Your task to perform on an android device: Open the stopwatch Image 0: 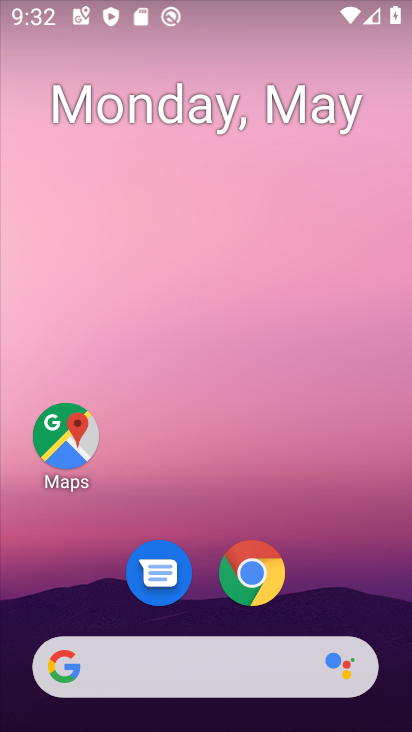
Step 0: drag from (385, 570) to (287, 74)
Your task to perform on an android device: Open the stopwatch Image 1: 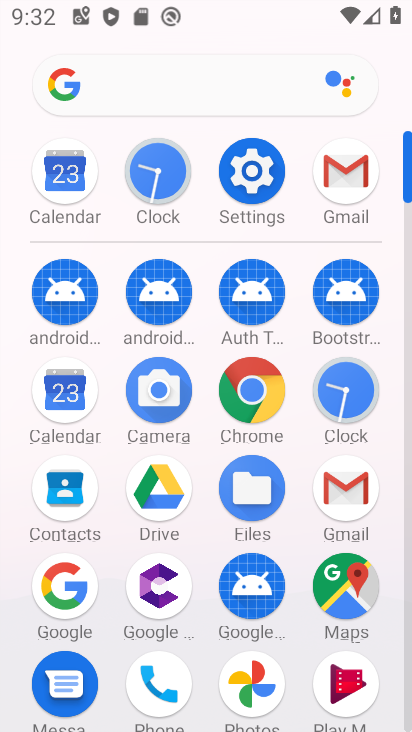
Step 1: click (139, 189)
Your task to perform on an android device: Open the stopwatch Image 2: 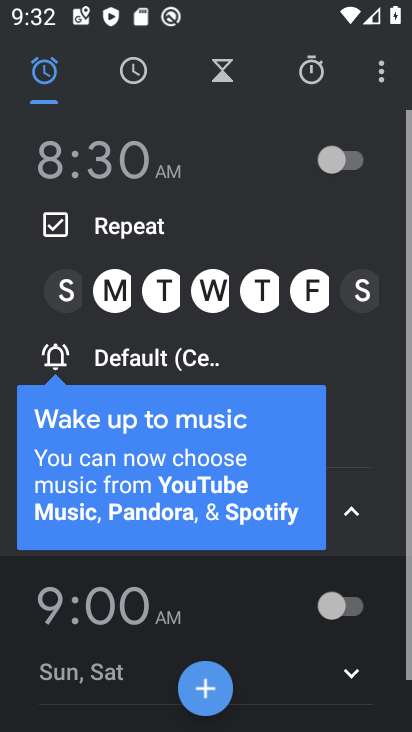
Step 2: click (288, 76)
Your task to perform on an android device: Open the stopwatch Image 3: 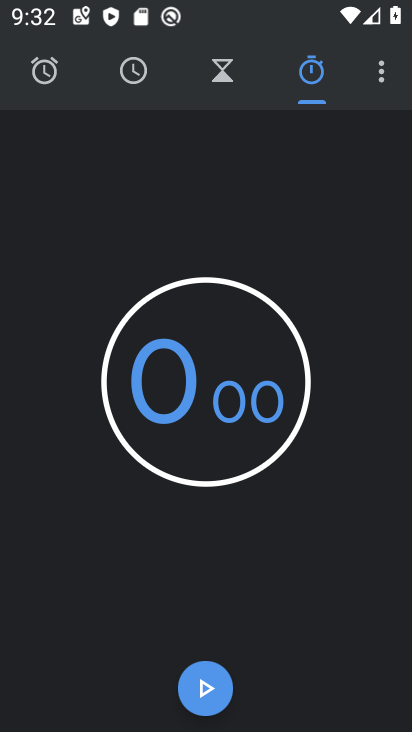
Step 3: task complete